Your task to perform on an android device: Open the calendar and show me this week's events? Image 0: 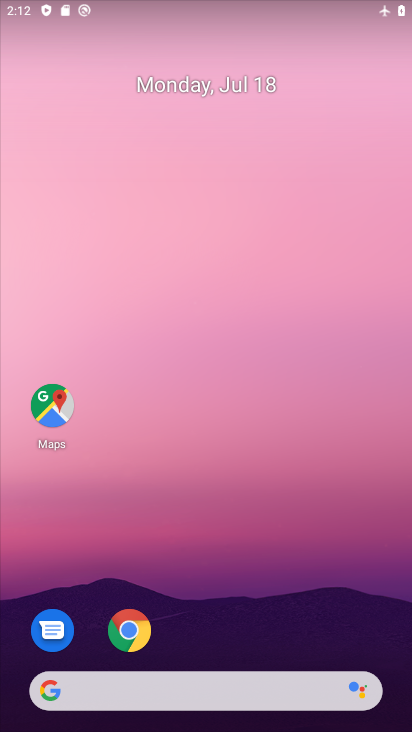
Step 0: drag from (257, 663) to (271, 84)
Your task to perform on an android device: Open the calendar and show me this week's events? Image 1: 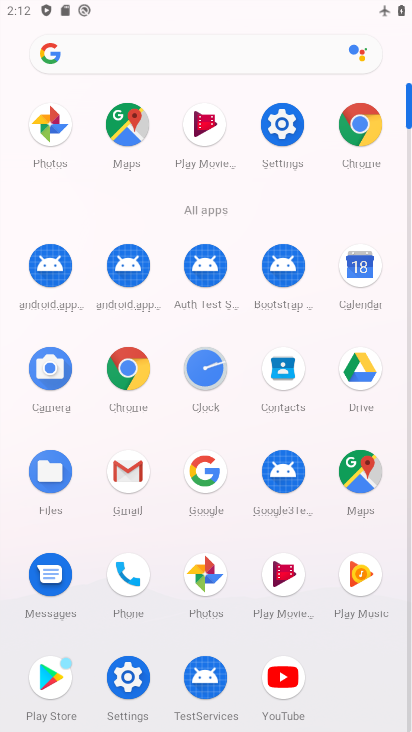
Step 1: click (362, 274)
Your task to perform on an android device: Open the calendar and show me this week's events? Image 2: 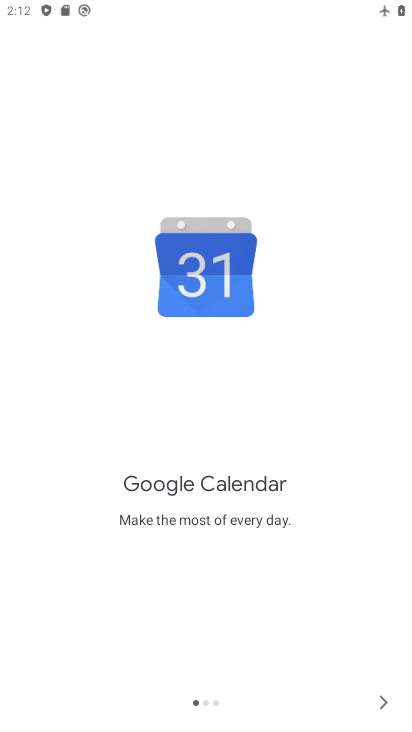
Step 2: click (382, 704)
Your task to perform on an android device: Open the calendar and show me this week's events? Image 3: 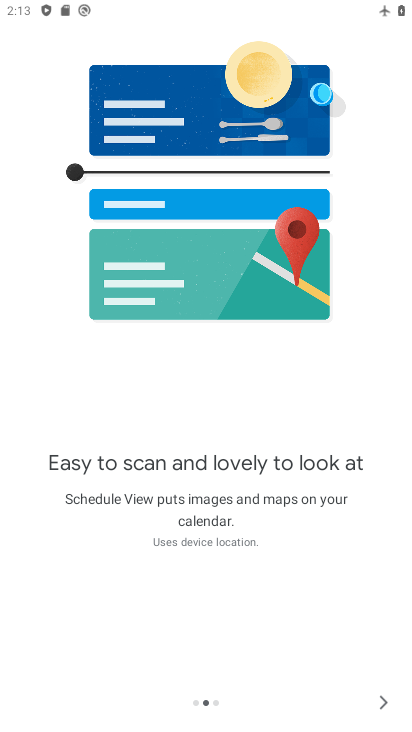
Step 3: click (383, 702)
Your task to perform on an android device: Open the calendar and show me this week's events? Image 4: 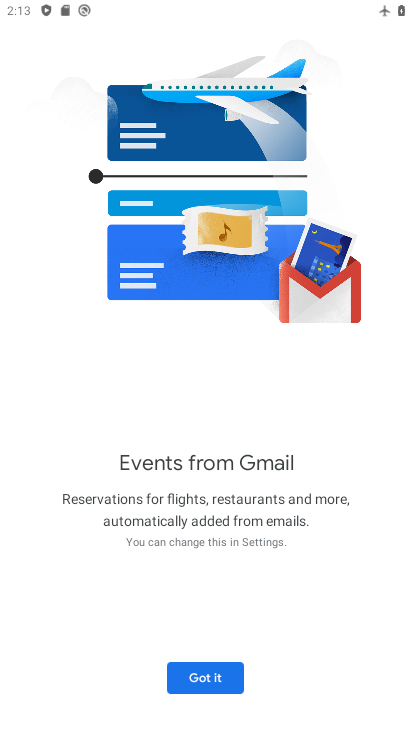
Step 4: click (197, 684)
Your task to perform on an android device: Open the calendar and show me this week's events? Image 5: 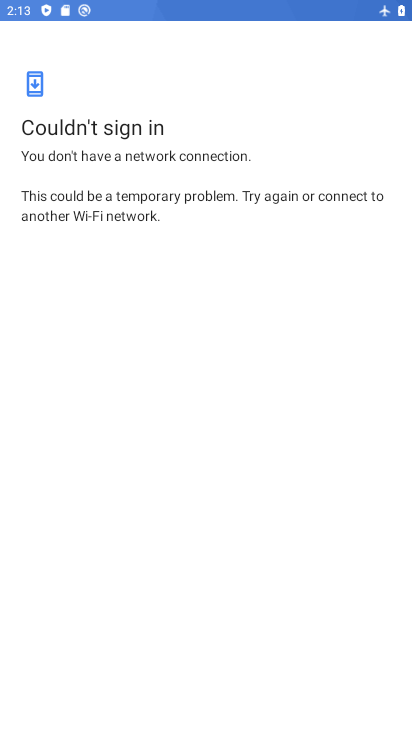
Step 5: click (73, 138)
Your task to perform on an android device: Open the calendar and show me this week's events? Image 6: 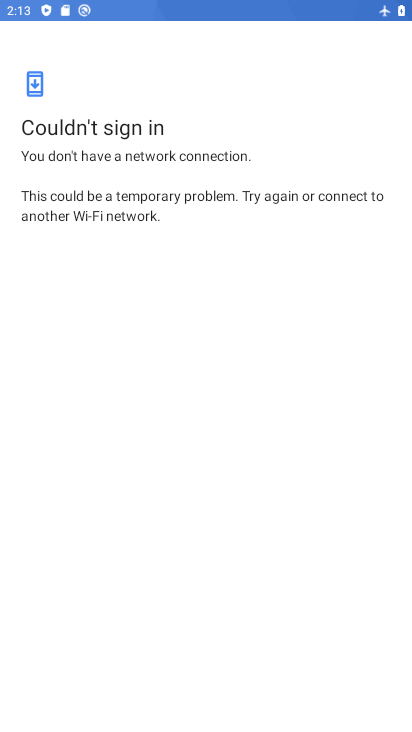
Step 6: click (39, 83)
Your task to perform on an android device: Open the calendar and show me this week's events? Image 7: 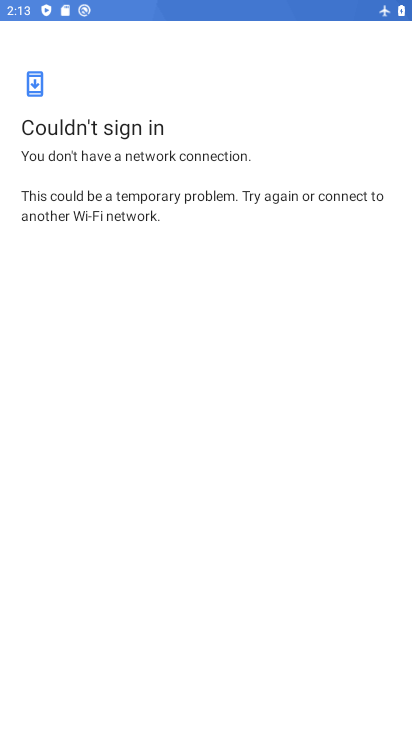
Step 7: task complete